Your task to perform on an android device: toggle translation in the chrome app Image 0: 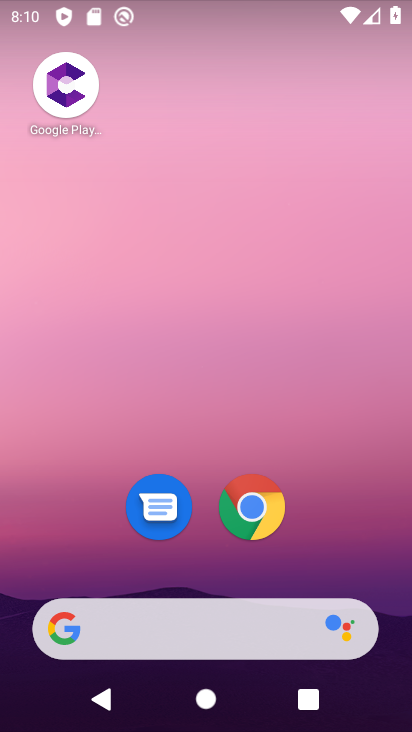
Step 0: click (258, 514)
Your task to perform on an android device: toggle translation in the chrome app Image 1: 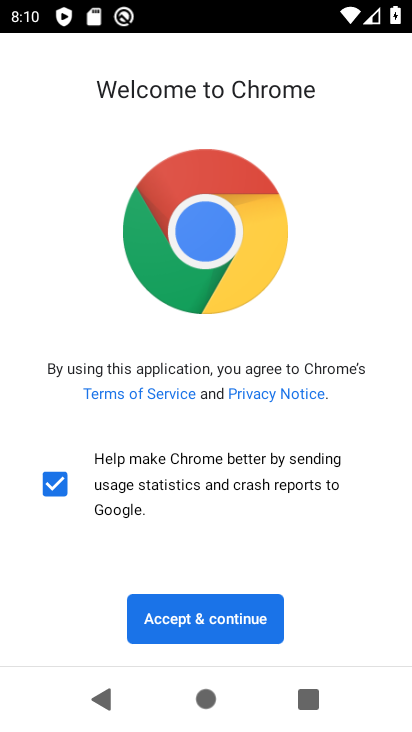
Step 1: click (220, 635)
Your task to perform on an android device: toggle translation in the chrome app Image 2: 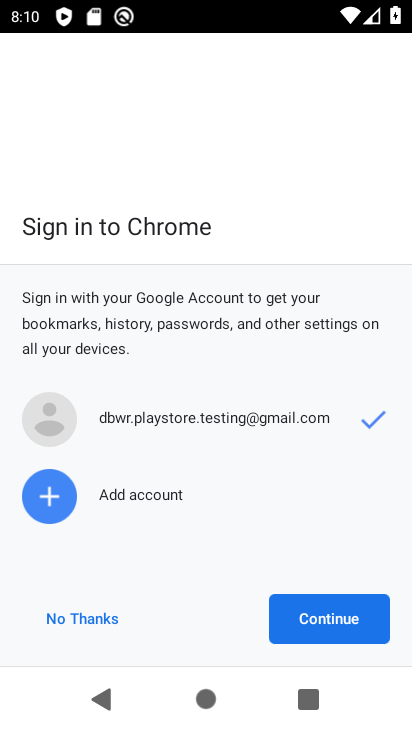
Step 2: click (311, 620)
Your task to perform on an android device: toggle translation in the chrome app Image 3: 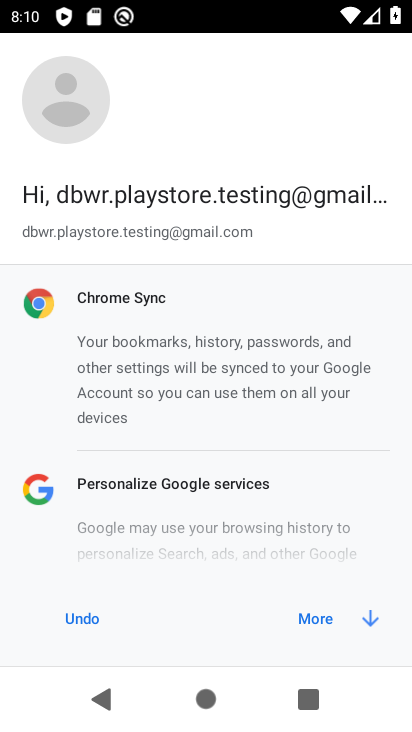
Step 3: click (358, 634)
Your task to perform on an android device: toggle translation in the chrome app Image 4: 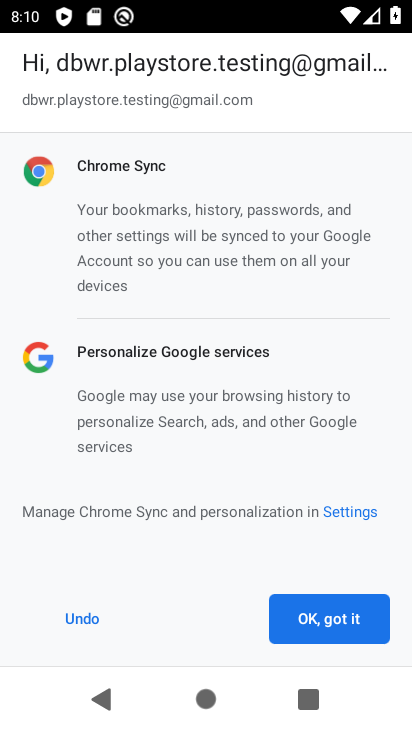
Step 4: click (358, 627)
Your task to perform on an android device: toggle translation in the chrome app Image 5: 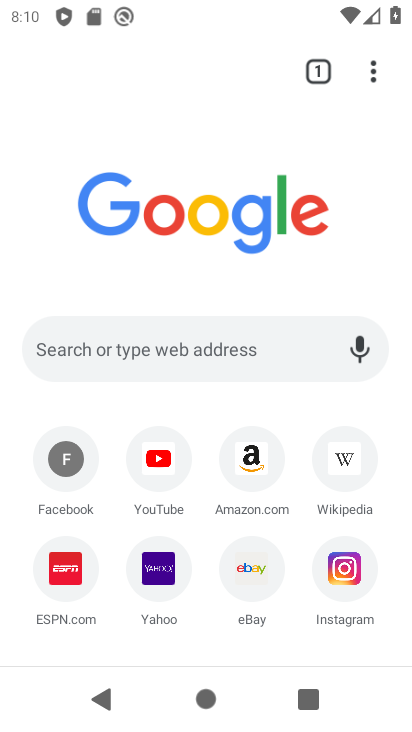
Step 5: drag from (382, 74) to (230, 515)
Your task to perform on an android device: toggle translation in the chrome app Image 6: 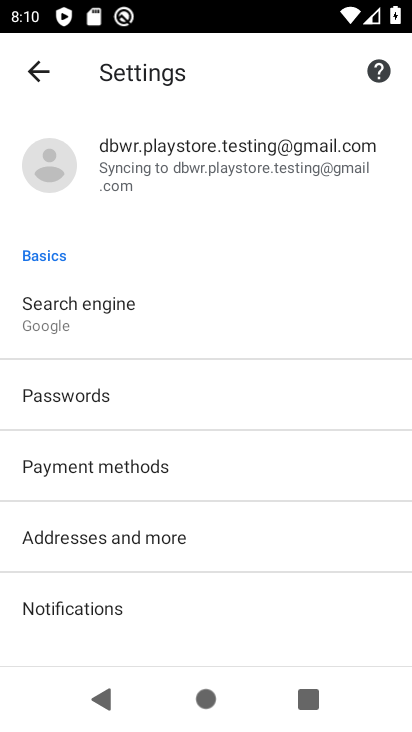
Step 6: drag from (260, 591) to (323, 257)
Your task to perform on an android device: toggle translation in the chrome app Image 7: 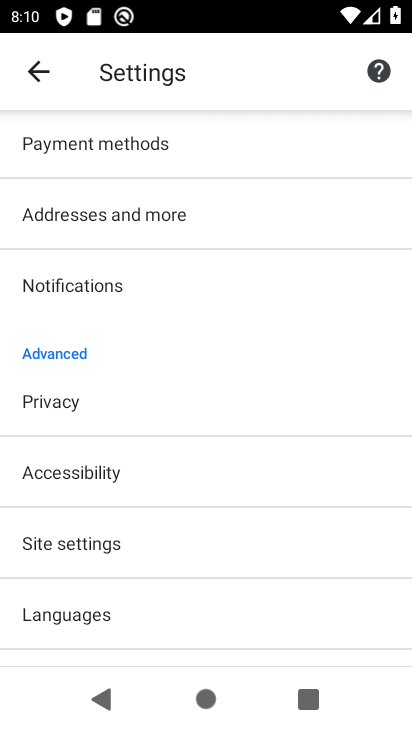
Step 7: click (156, 620)
Your task to perform on an android device: toggle translation in the chrome app Image 8: 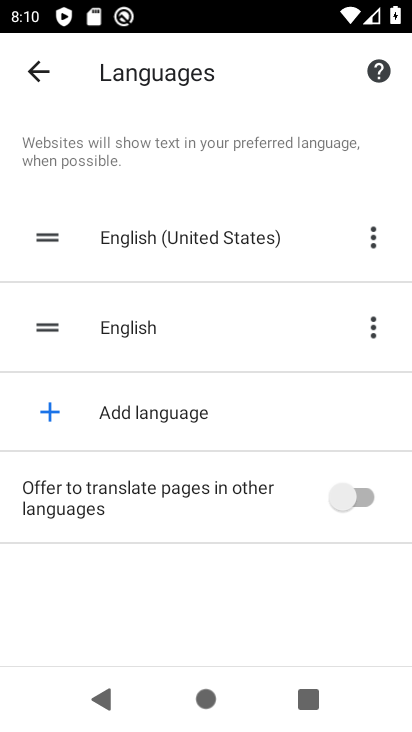
Step 8: click (382, 503)
Your task to perform on an android device: toggle translation in the chrome app Image 9: 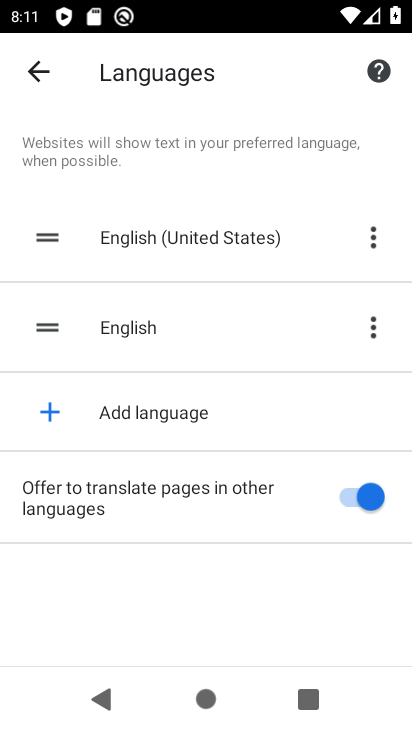
Step 9: task complete